Your task to perform on an android device: turn on translation in the chrome app Image 0: 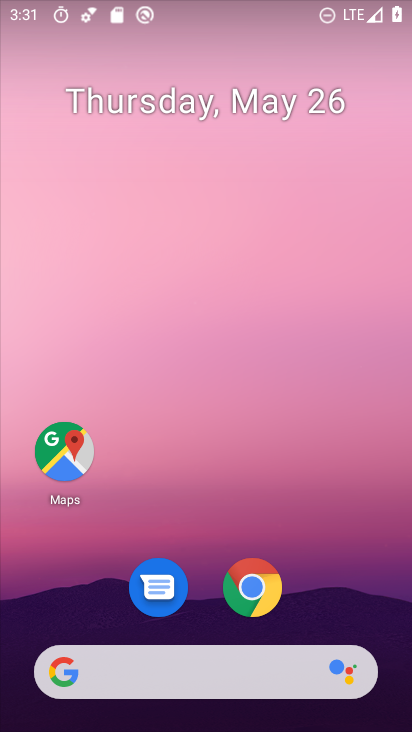
Step 0: click (247, 582)
Your task to perform on an android device: turn on translation in the chrome app Image 1: 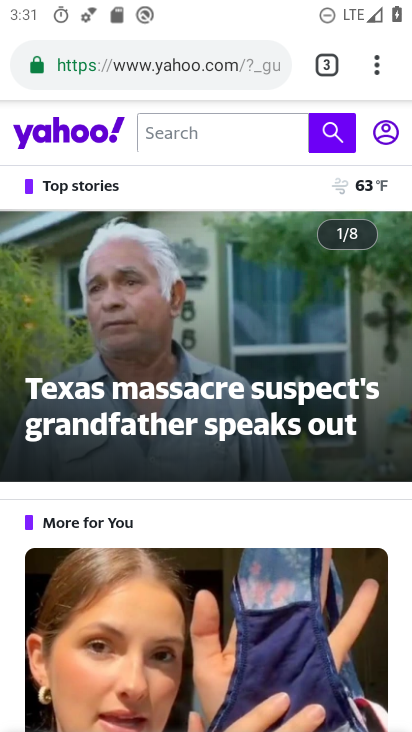
Step 1: drag from (380, 48) to (216, 628)
Your task to perform on an android device: turn on translation in the chrome app Image 2: 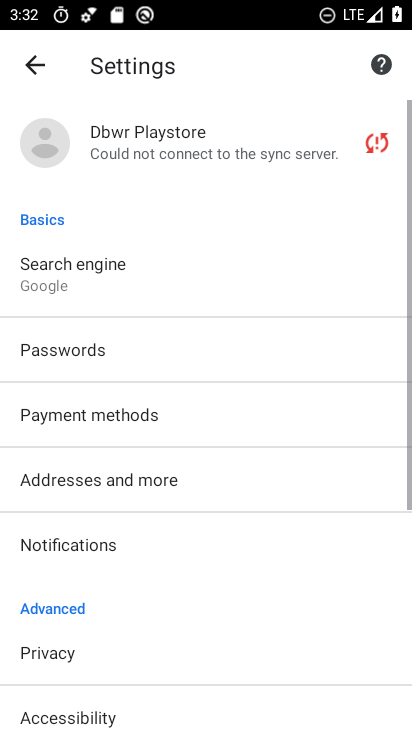
Step 2: drag from (224, 560) to (304, 117)
Your task to perform on an android device: turn on translation in the chrome app Image 3: 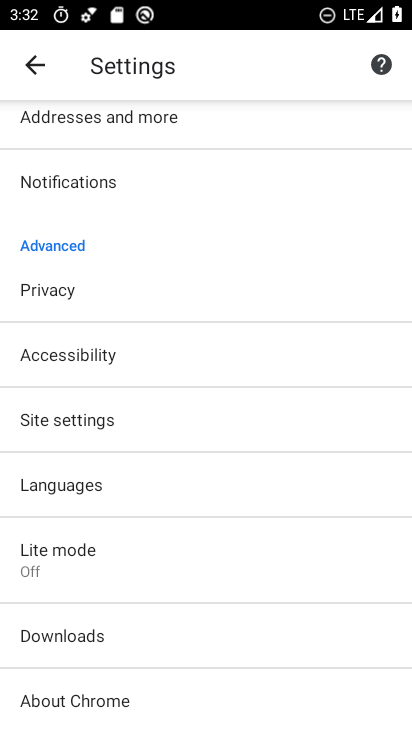
Step 3: click (77, 491)
Your task to perform on an android device: turn on translation in the chrome app Image 4: 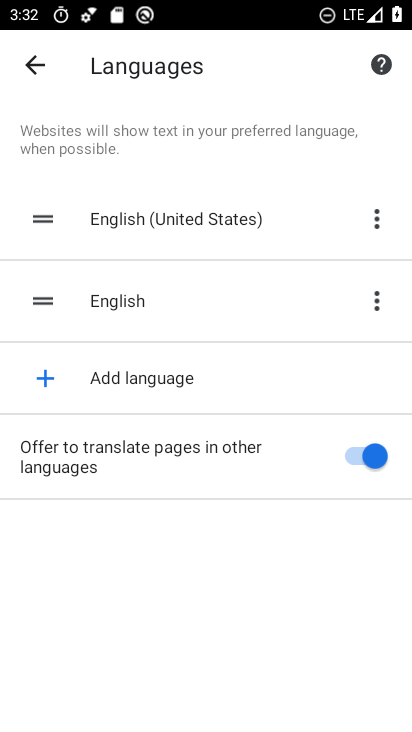
Step 4: task complete